Your task to perform on an android device: Open location settings Image 0: 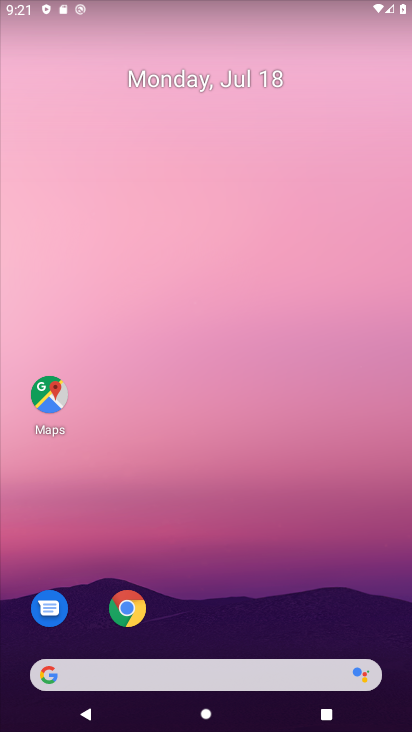
Step 0: drag from (262, 703) to (186, 326)
Your task to perform on an android device: Open location settings Image 1: 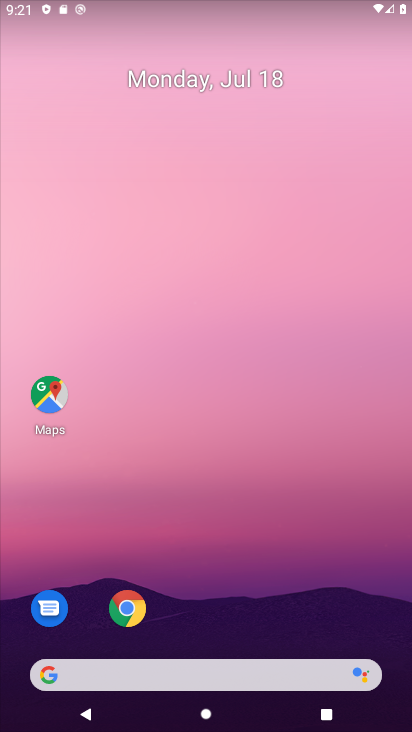
Step 1: drag from (270, 646) to (238, 390)
Your task to perform on an android device: Open location settings Image 2: 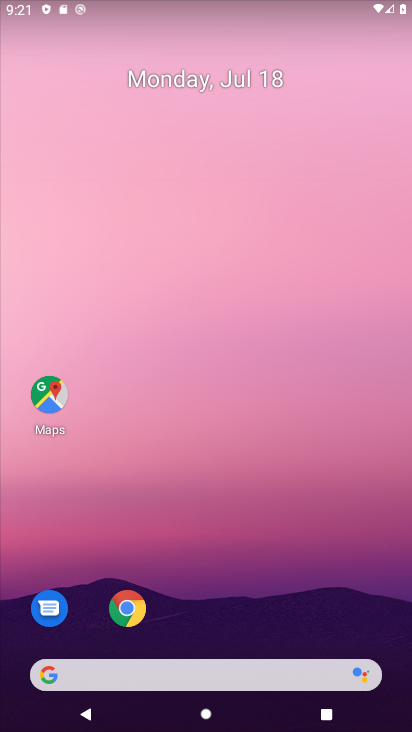
Step 2: drag from (243, 562) to (213, 265)
Your task to perform on an android device: Open location settings Image 3: 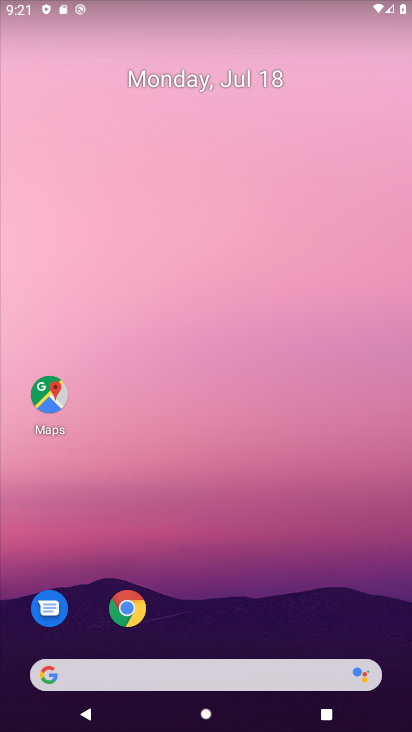
Step 3: drag from (222, 571) to (222, 217)
Your task to perform on an android device: Open location settings Image 4: 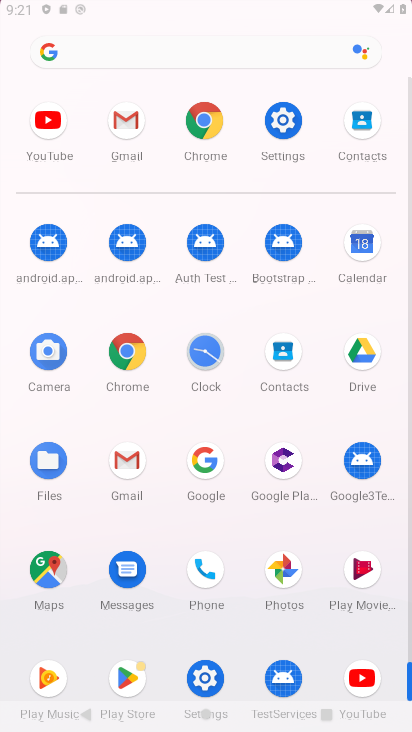
Step 4: drag from (254, 554) to (211, 212)
Your task to perform on an android device: Open location settings Image 5: 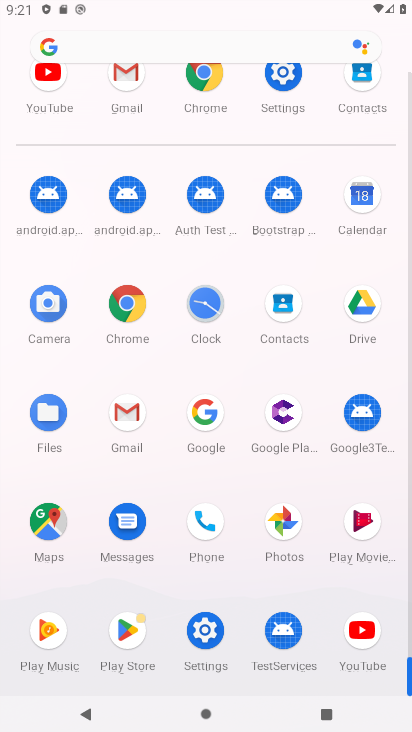
Step 5: click (284, 80)
Your task to perform on an android device: Open location settings Image 6: 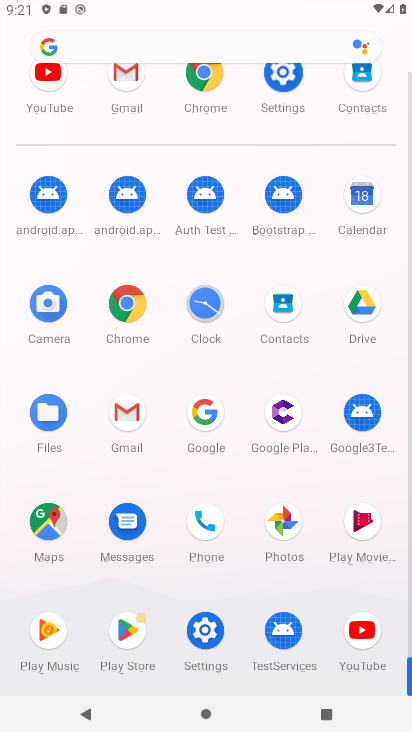
Step 6: click (284, 80)
Your task to perform on an android device: Open location settings Image 7: 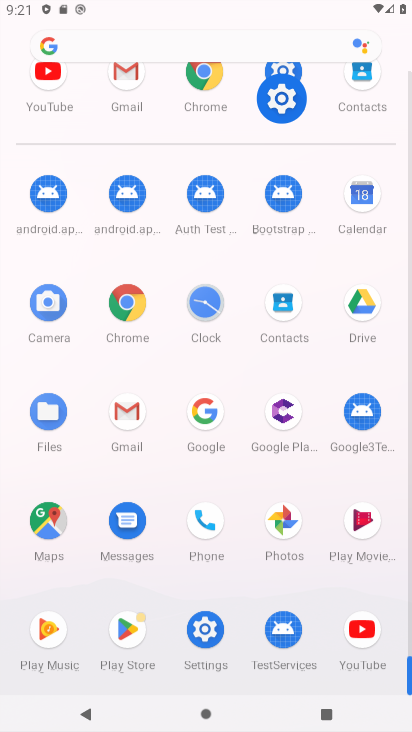
Step 7: click (284, 80)
Your task to perform on an android device: Open location settings Image 8: 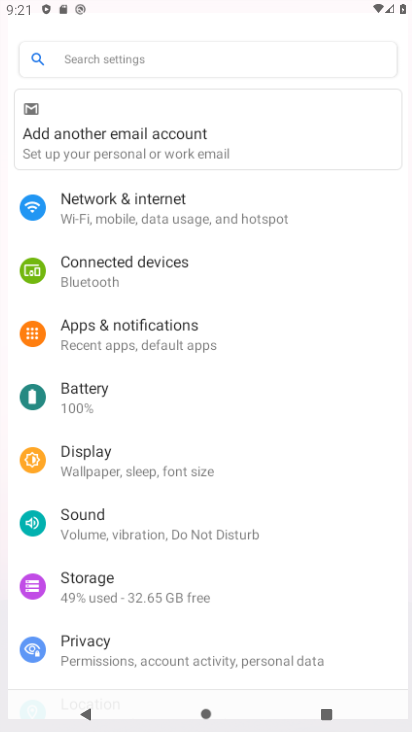
Step 8: click (284, 80)
Your task to perform on an android device: Open location settings Image 9: 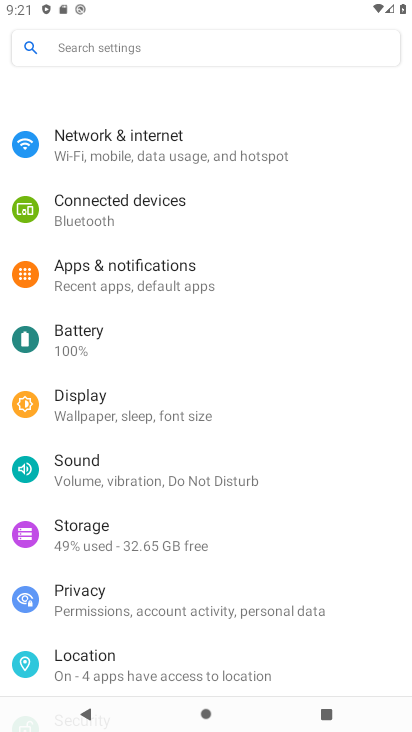
Step 9: click (284, 80)
Your task to perform on an android device: Open location settings Image 10: 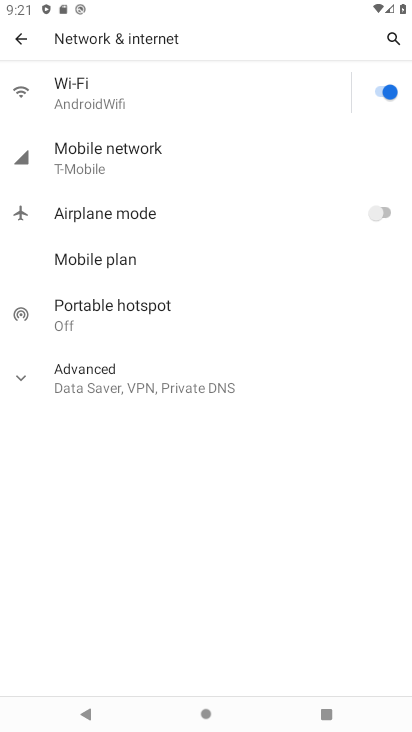
Step 10: click (19, 33)
Your task to perform on an android device: Open location settings Image 11: 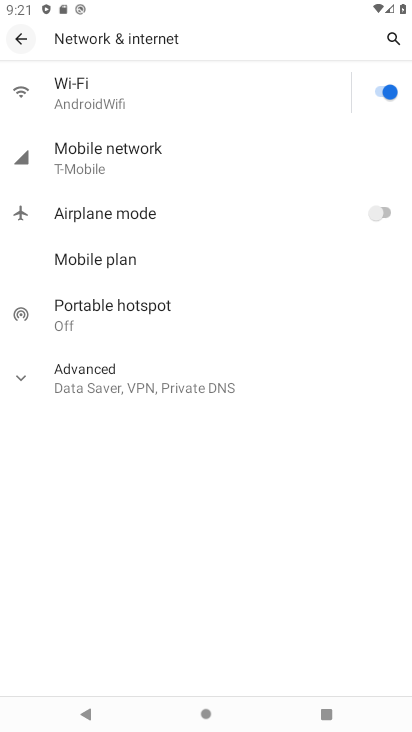
Step 11: click (18, 33)
Your task to perform on an android device: Open location settings Image 12: 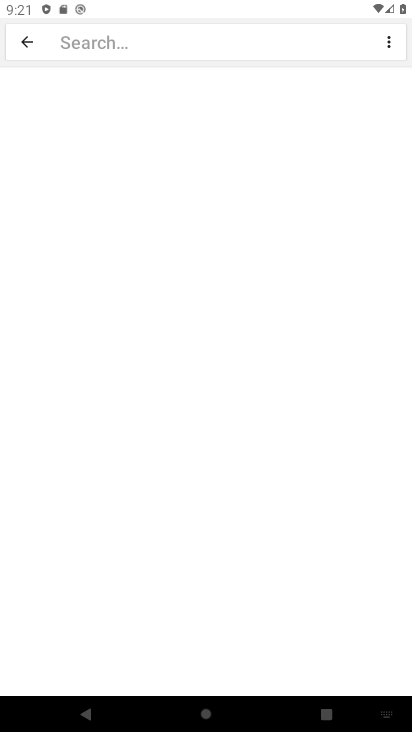
Step 12: click (16, 42)
Your task to perform on an android device: Open location settings Image 13: 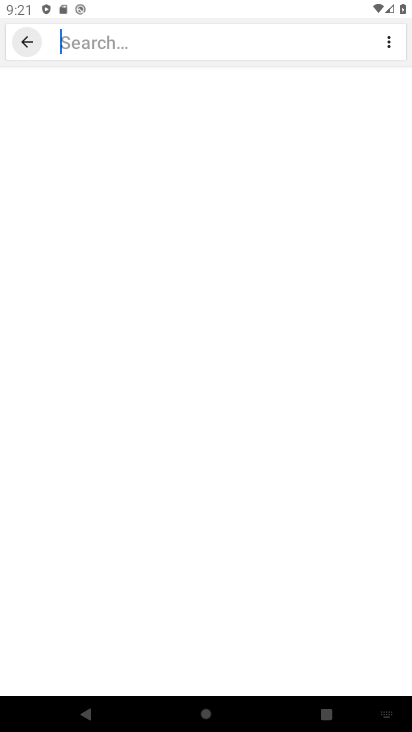
Step 13: click (29, 41)
Your task to perform on an android device: Open location settings Image 14: 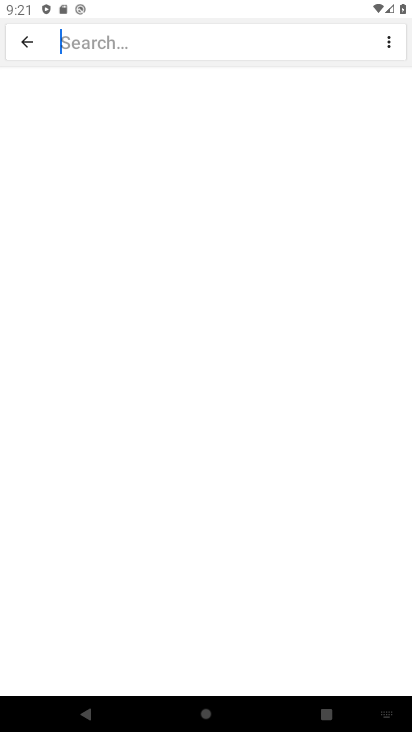
Step 14: click (29, 41)
Your task to perform on an android device: Open location settings Image 15: 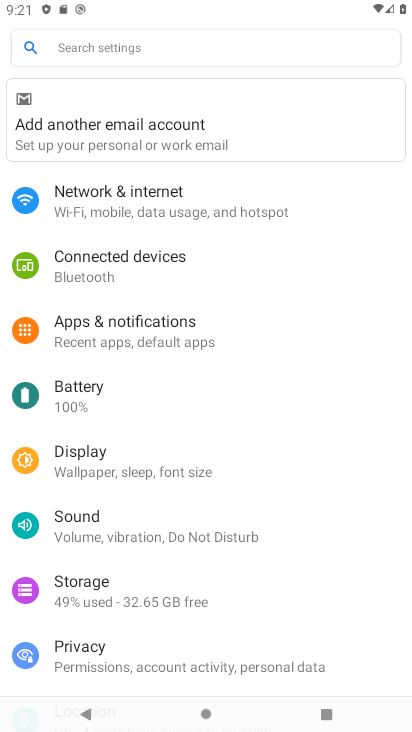
Step 15: drag from (107, 546) to (100, 288)
Your task to perform on an android device: Open location settings Image 16: 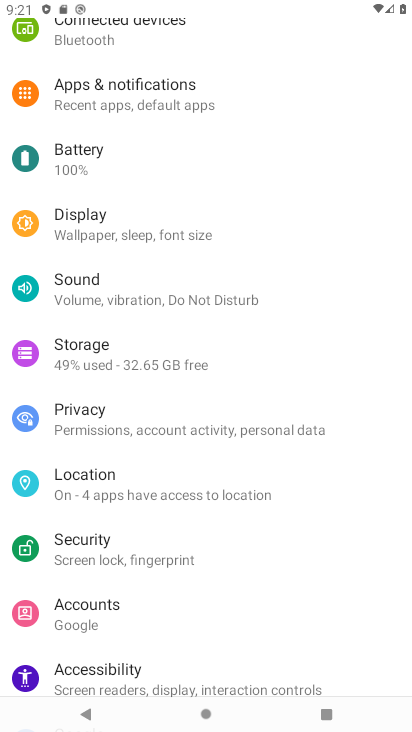
Step 16: drag from (169, 475) to (185, 306)
Your task to perform on an android device: Open location settings Image 17: 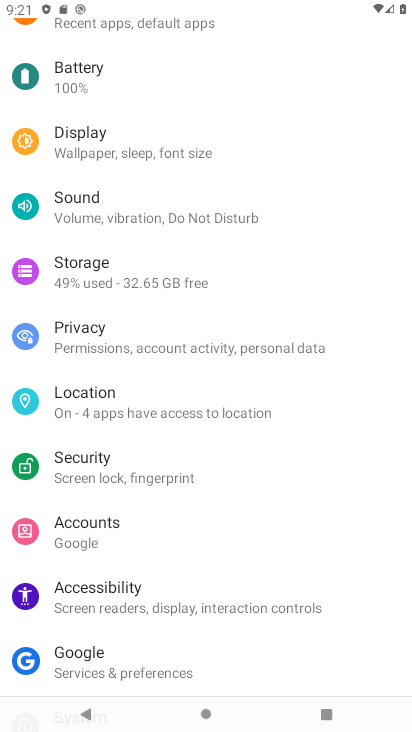
Step 17: click (90, 397)
Your task to perform on an android device: Open location settings Image 18: 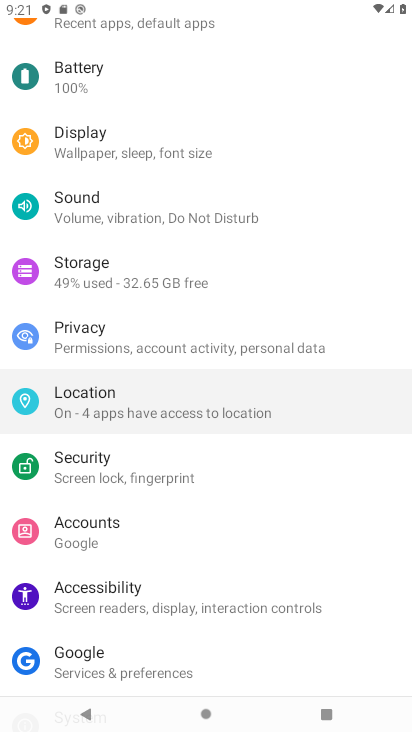
Step 18: click (90, 397)
Your task to perform on an android device: Open location settings Image 19: 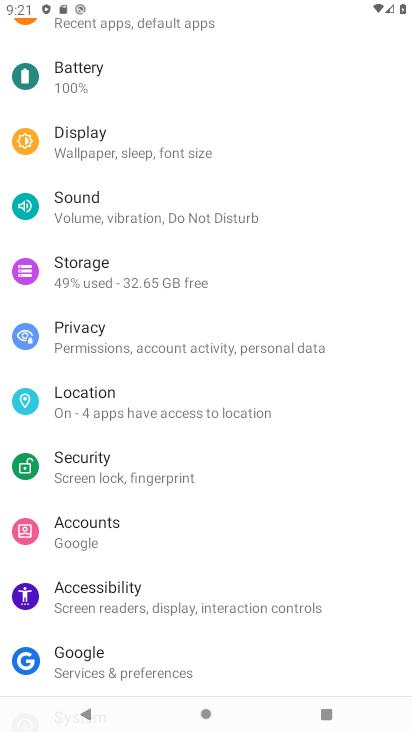
Step 19: click (90, 397)
Your task to perform on an android device: Open location settings Image 20: 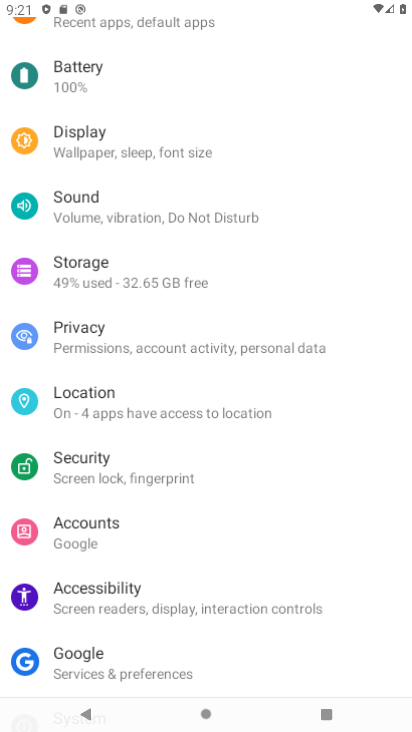
Step 20: click (98, 397)
Your task to perform on an android device: Open location settings Image 21: 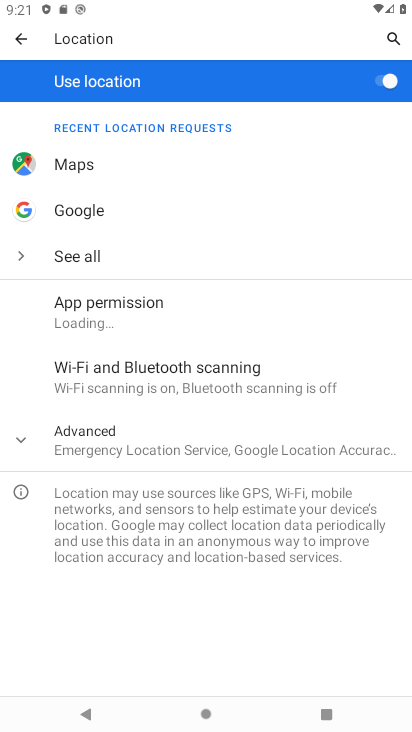
Step 21: click (106, 439)
Your task to perform on an android device: Open location settings Image 22: 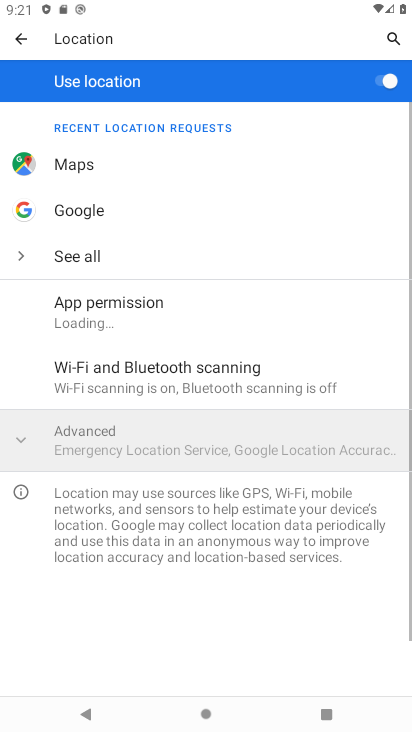
Step 22: click (106, 439)
Your task to perform on an android device: Open location settings Image 23: 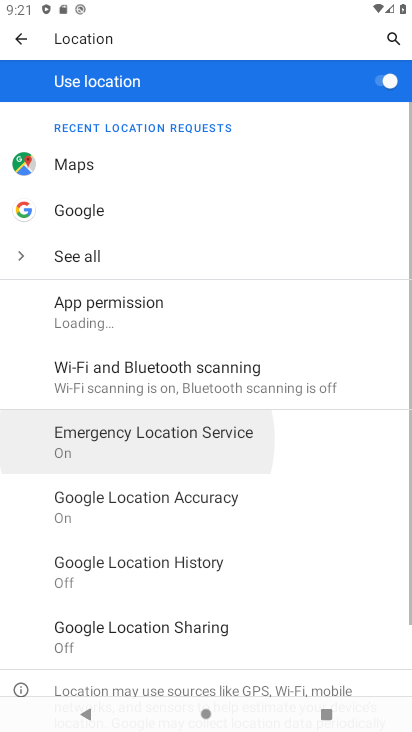
Step 23: click (107, 450)
Your task to perform on an android device: Open location settings Image 24: 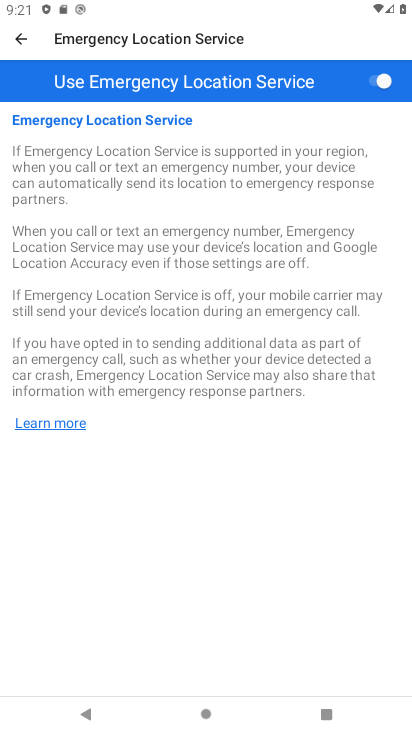
Step 24: click (20, 38)
Your task to perform on an android device: Open location settings Image 25: 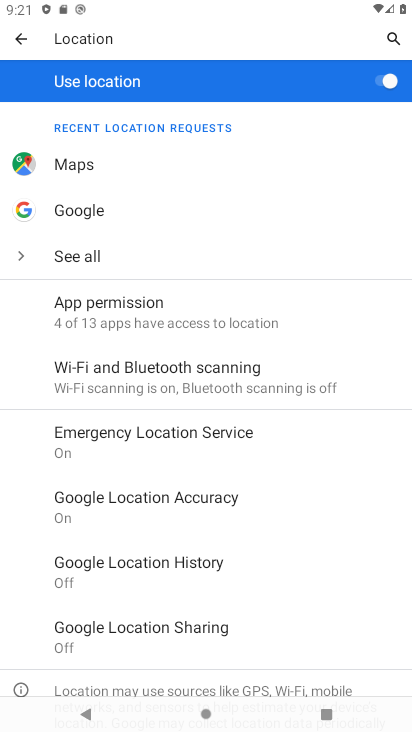
Step 25: task complete